Your task to perform on an android device: toggle notification dots Image 0: 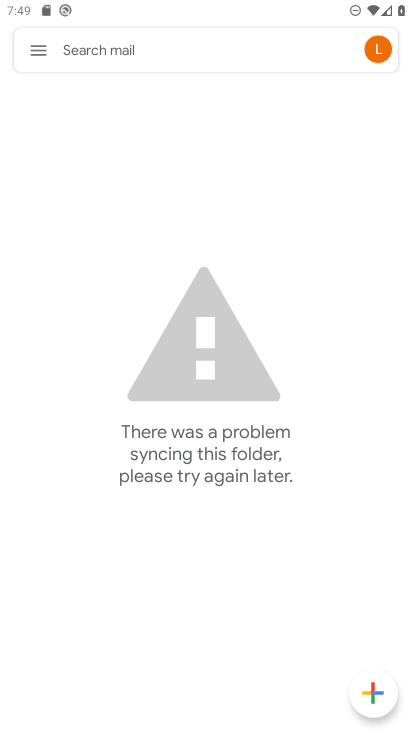
Step 0: press home button
Your task to perform on an android device: toggle notification dots Image 1: 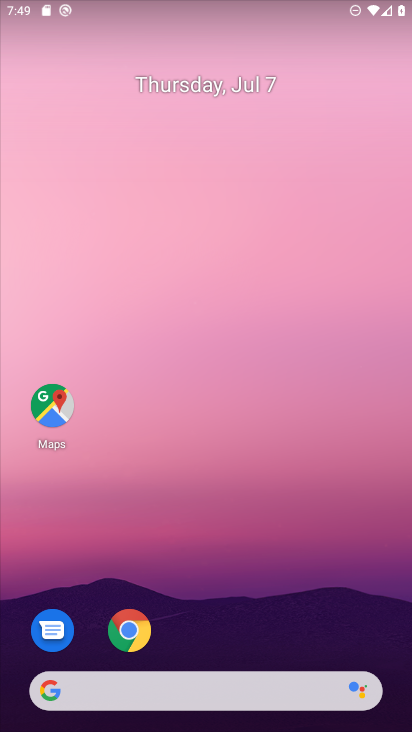
Step 1: drag from (233, 573) to (140, 139)
Your task to perform on an android device: toggle notification dots Image 2: 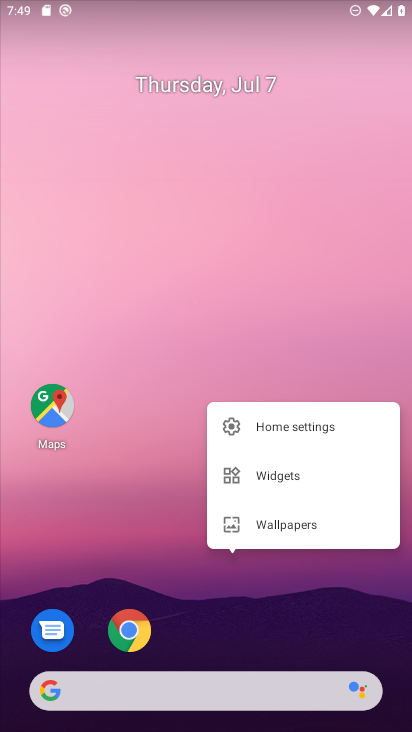
Step 2: click (197, 295)
Your task to perform on an android device: toggle notification dots Image 3: 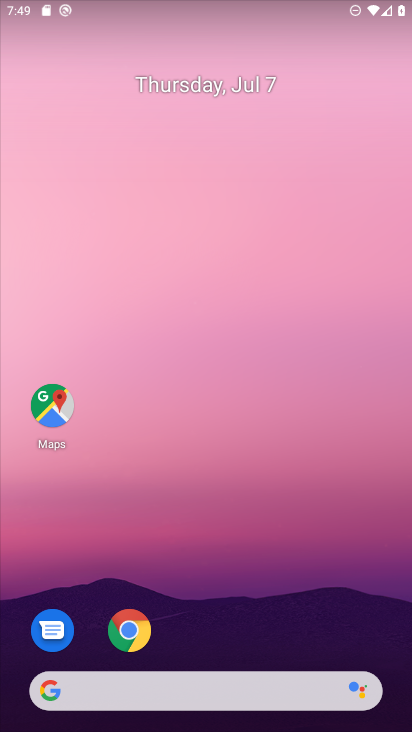
Step 3: drag from (241, 537) to (257, 3)
Your task to perform on an android device: toggle notification dots Image 4: 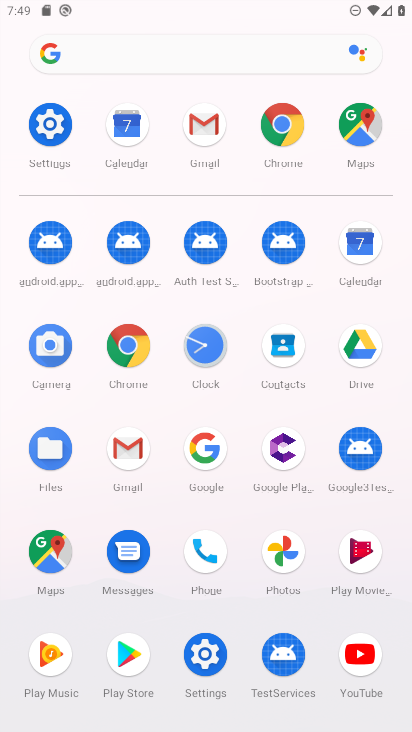
Step 4: click (43, 125)
Your task to perform on an android device: toggle notification dots Image 5: 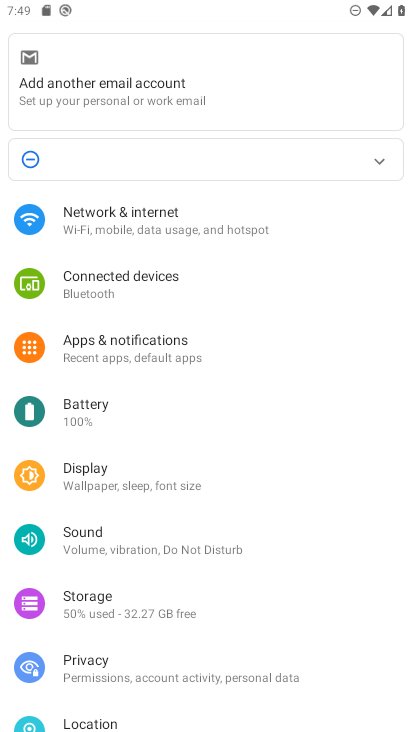
Step 5: click (142, 336)
Your task to perform on an android device: toggle notification dots Image 6: 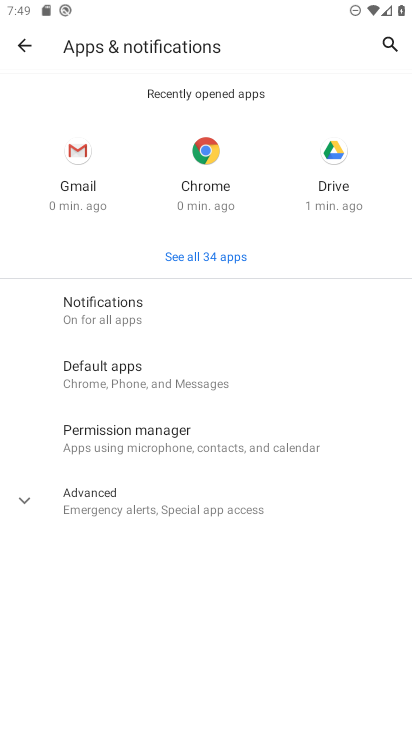
Step 6: click (120, 304)
Your task to perform on an android device: toggle notification dots Image 7: 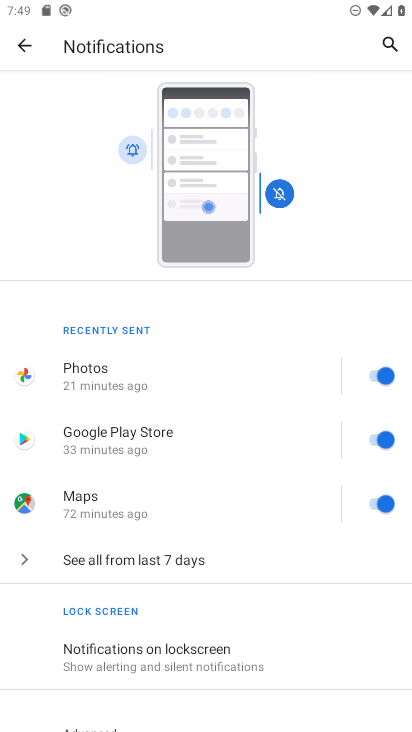
Step 7: drag from (268, 628) to (213, 327)
Your task to perform on an android device: toggle notification dots Image 8: 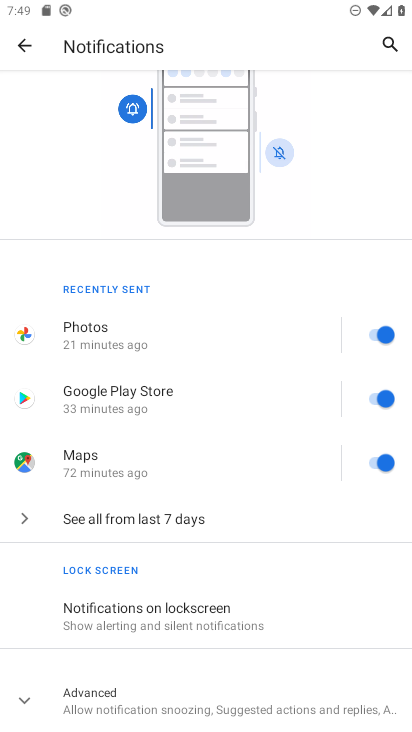
Step 8: click (82, 694)
Your task to perform on an android device: toggle notification dots Image 9: 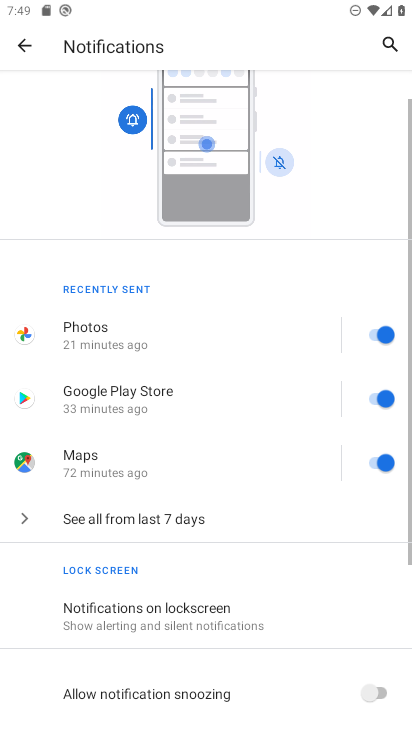
Step 9: drag from (253, 647) to (193, 283)
Your task to perform on an android device: toggle notification dots Image 10: 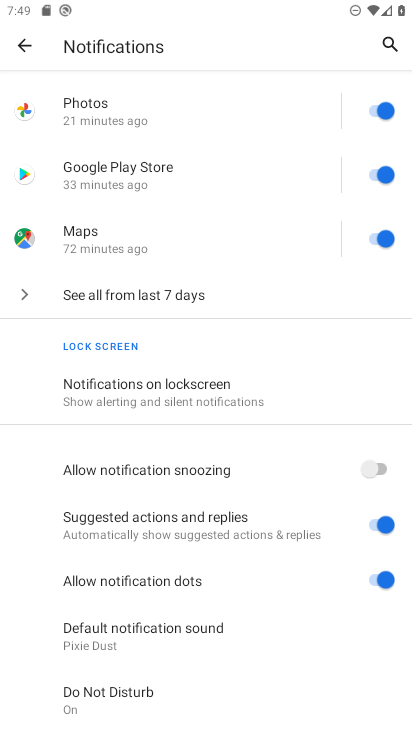
Step 10: click (375, 575)
Your task to perform on an android device: toggle notification dots Image 11: 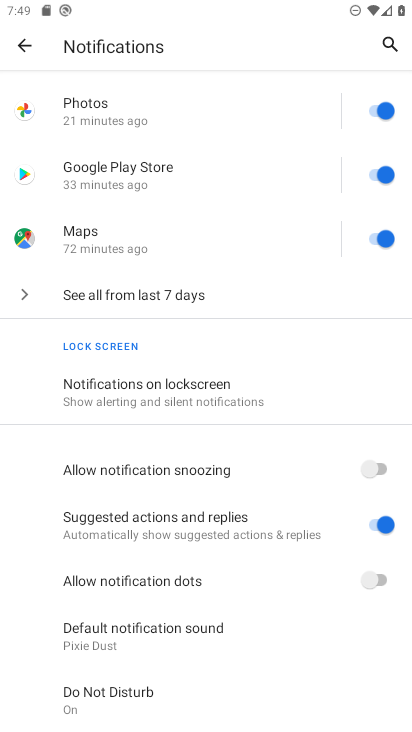
Step 11: task complete